Your task to perform on an android device: allow cookies in the chrome app Image 0: 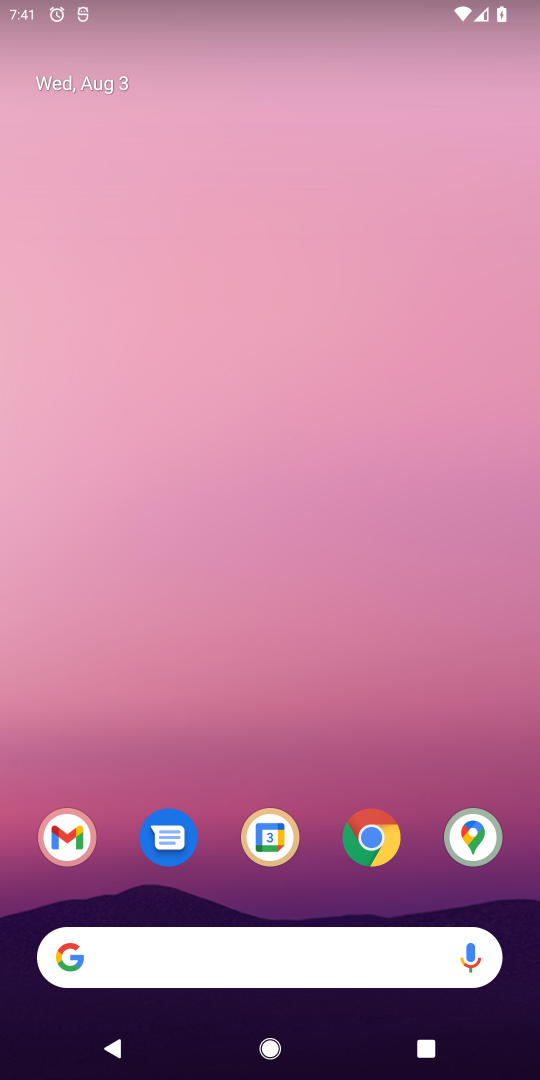
Step 0: press home button
Your task to perform on an android device: allow cookies in the chrome app Image 1: 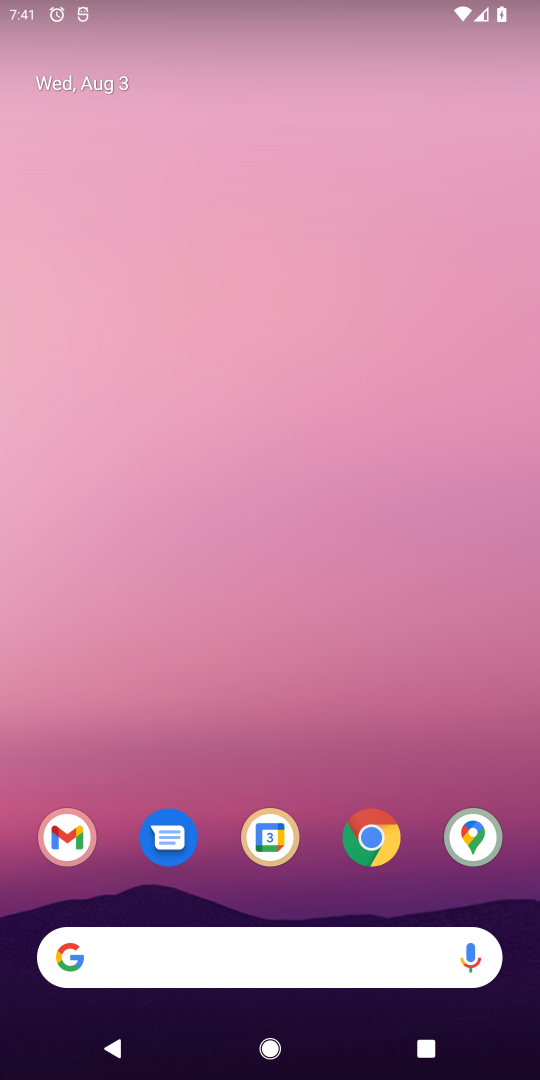
Step 1: click (376, 830)
Your task to perform on an android device: allow cookies in the chrome app Image 2: 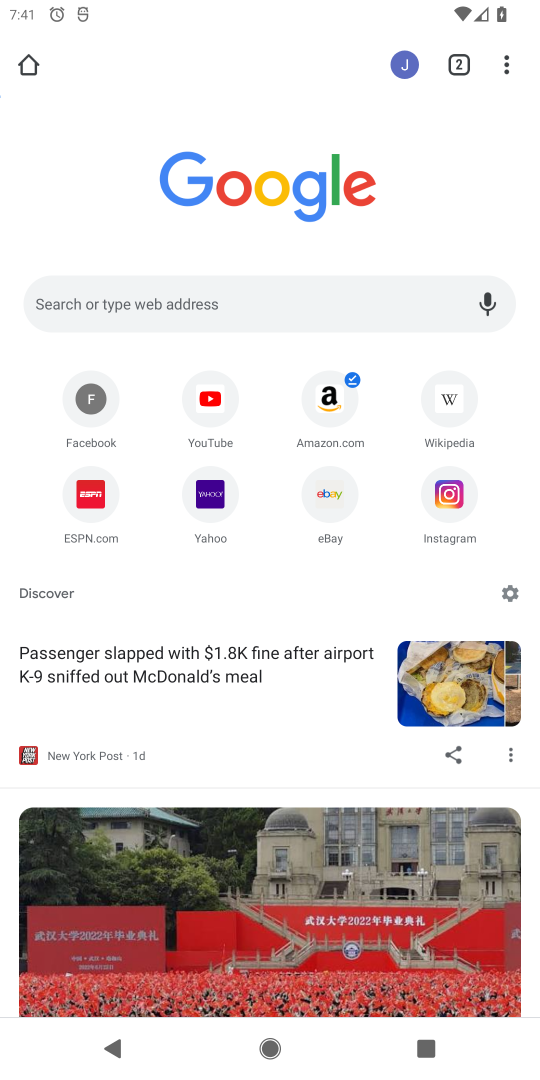
Step 2: drag from (509, 66) to (324, 631)
Your task to perform on an android device: allow cookies in the chrome app Image 3: 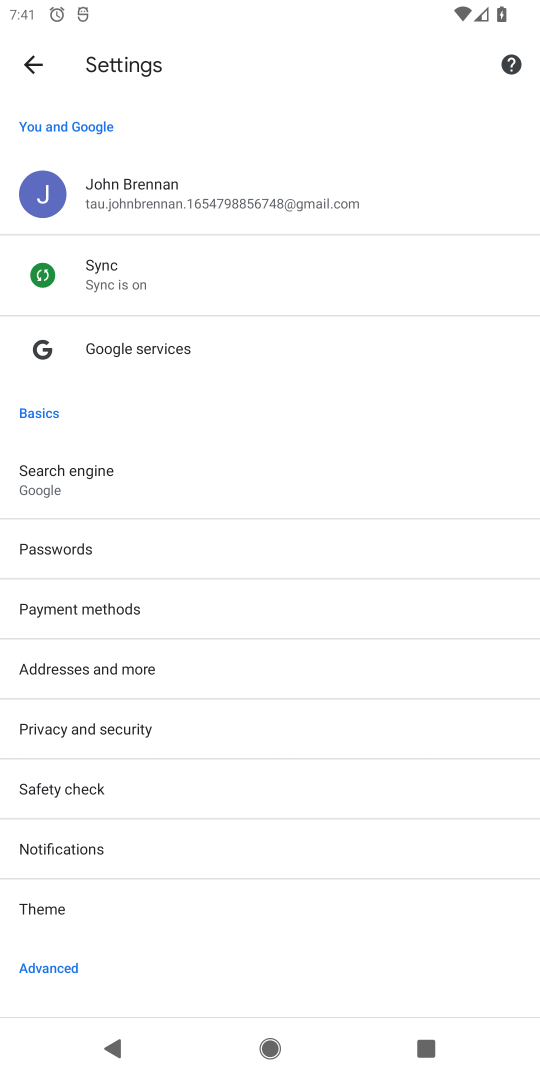
Step 3: drag from (317, 876) to (266, 318)
Your task to perform on an android device: allow cookies in the chrome app Image 4: 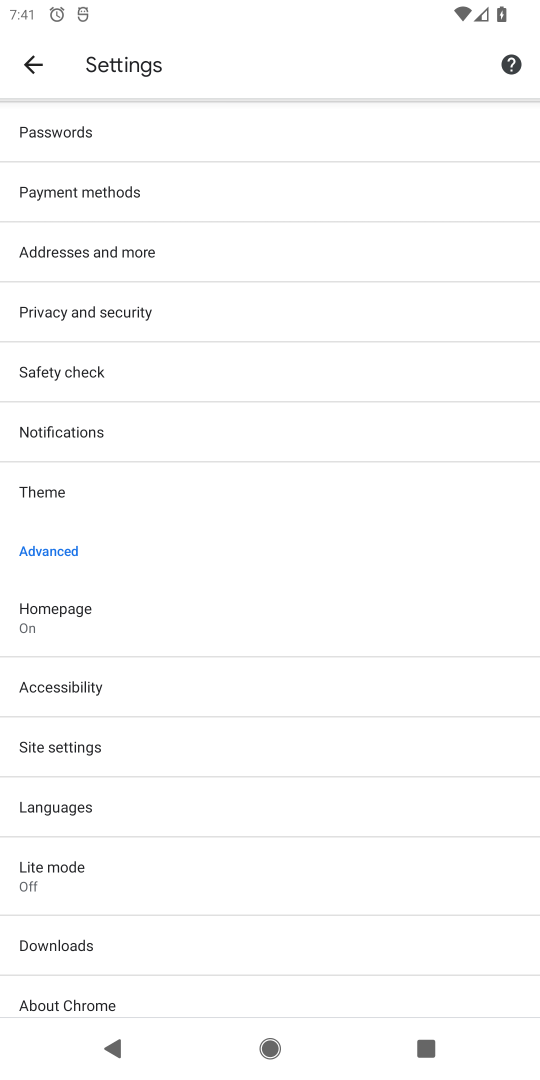
Step 4: click (55, 746)
Your task to perform on an android device: allow cookies in the chrome app Image 5: 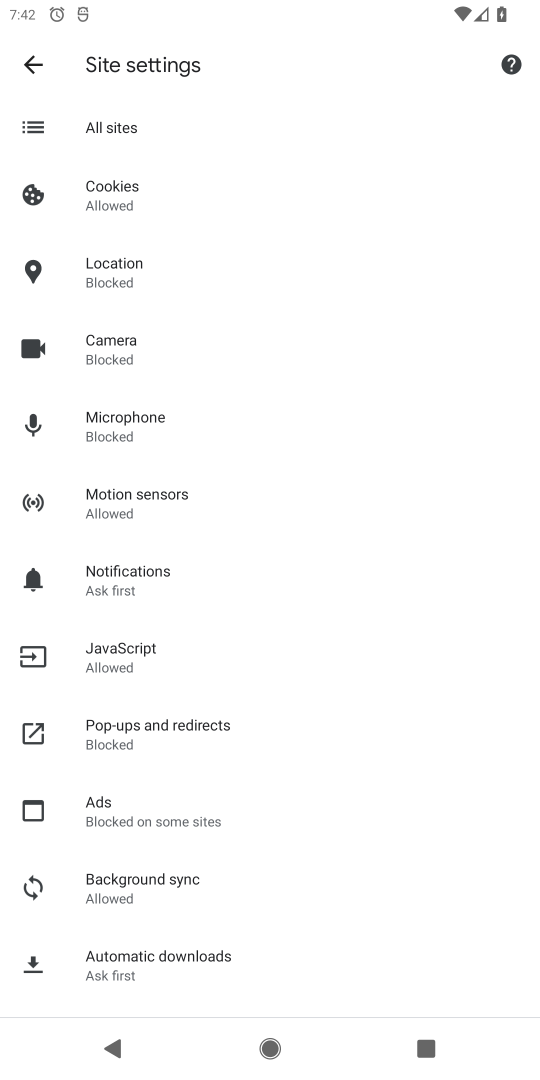
Step 5: click (101, 204)
Your task to perform on an android device: allow cookies in the chrome app Image 6: 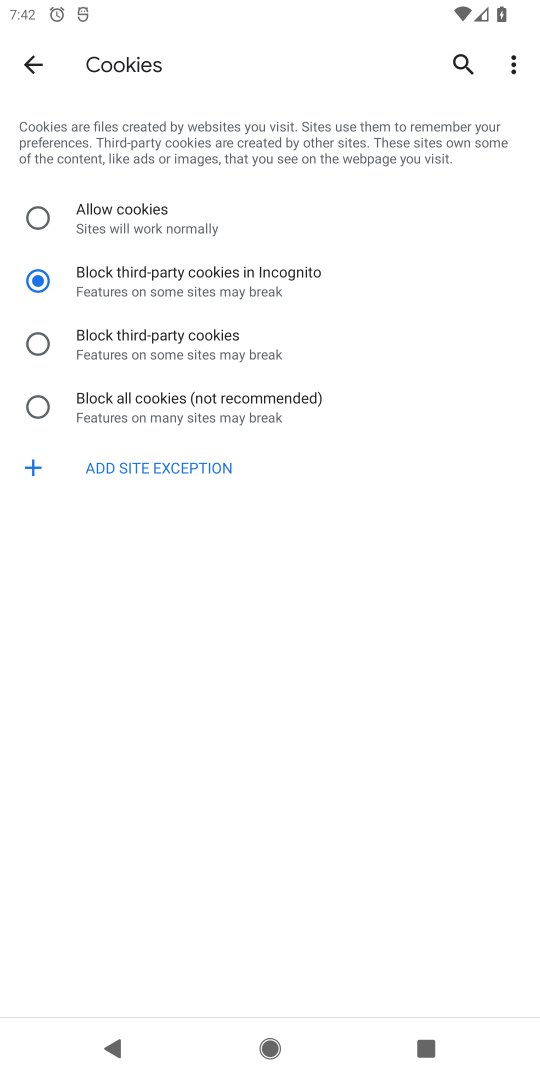
Step 6: click (54, 215)
Your task to perform on an android device: allow cookies in the chrome app Image 7: 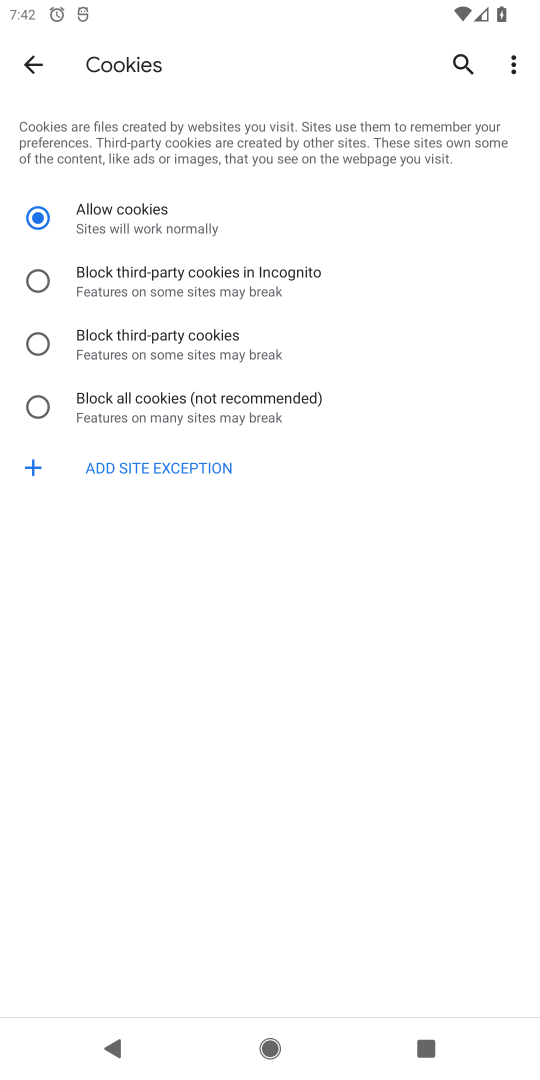
Step 7: task complete